Your task to perform on an android device: Open calendar and show me the second week of next month Image 0: 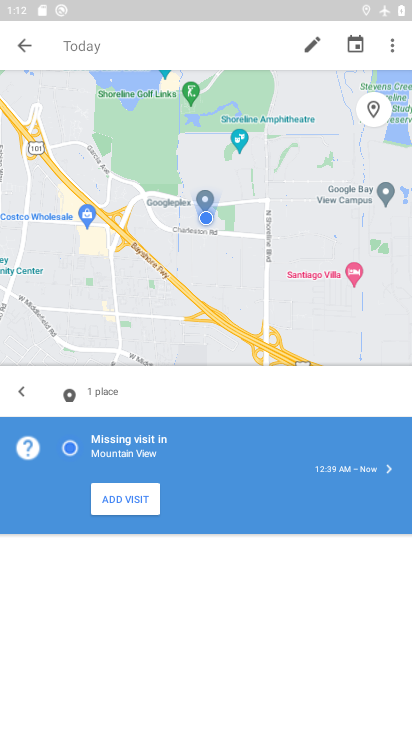
Step 0: press home button
Your task to perform on an android device: Open calendar and show me the second week of next month Image 1: 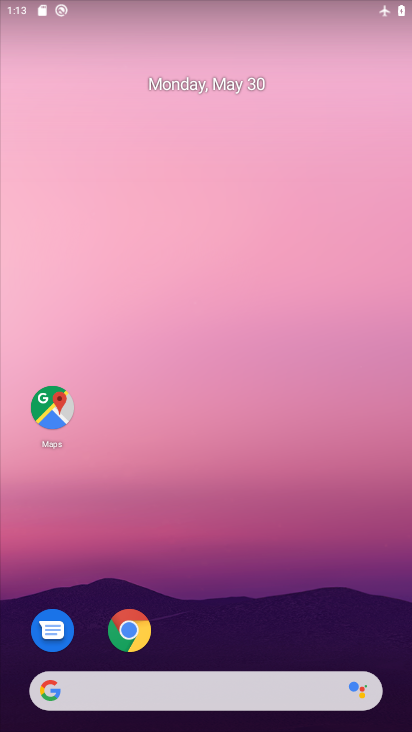
Step 1: drag from (197, 686) to (355, 69)
Your task to perform on an android device: Open calendar and show me the second week of next month Image 2: 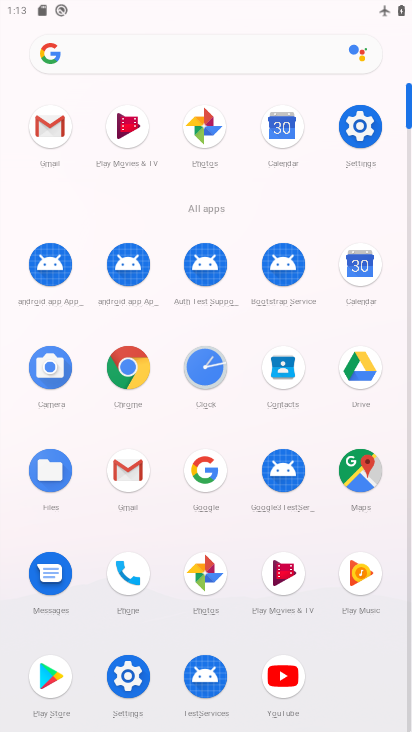
Step 2: click (277, 129)
Your task to perform on an android device: Open calendar and show me the second week of next month Image 3: 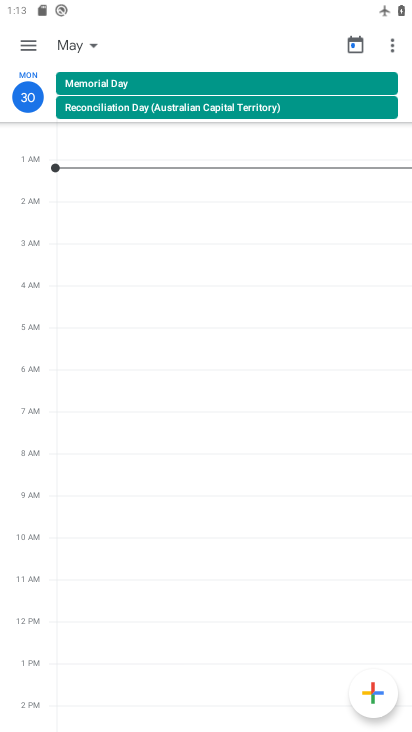
Step 3: click (76, 45)
Your task to perform on an android device: Open calendar and show me the second week of next month Image 4: 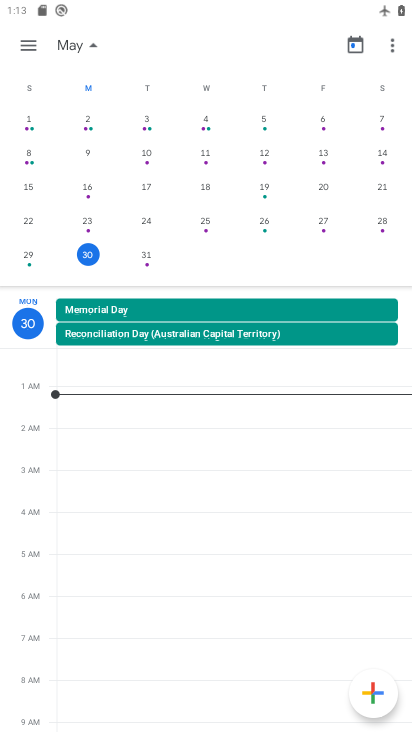
Step 4: drag from (369, 192) to (0, 227)
Your task to perform on an android device: Open calendar and show me the second week of next month Image 5: 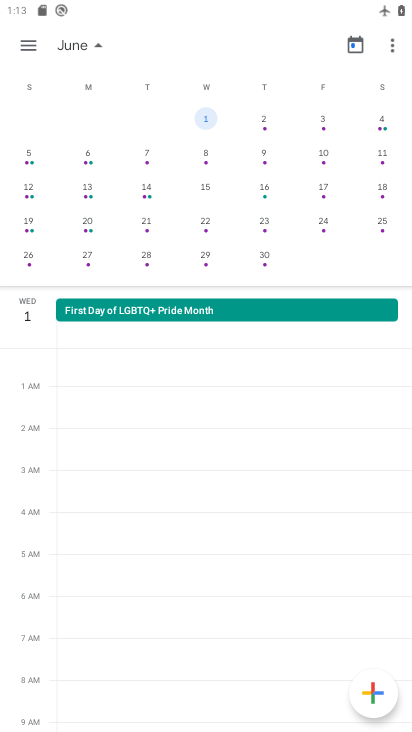
Step 5: click (33, 154)
Your task to perform on an android device: Open calendar and show me the second week of next month Image 6: 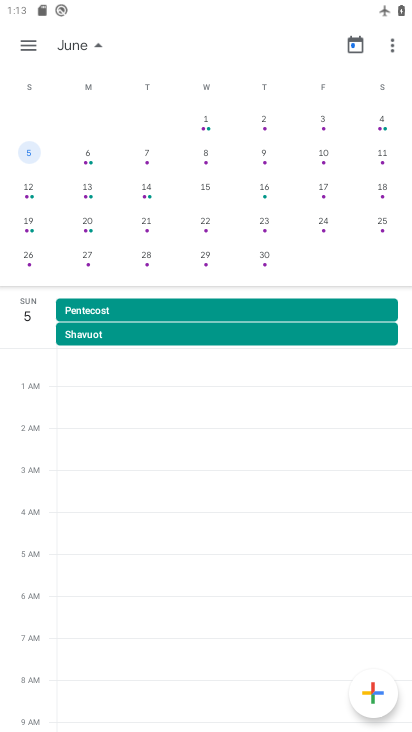
Step 6: click (30, 44)
Your task to perform on an android device: Open calendar and show me the second week of next month Image 7: 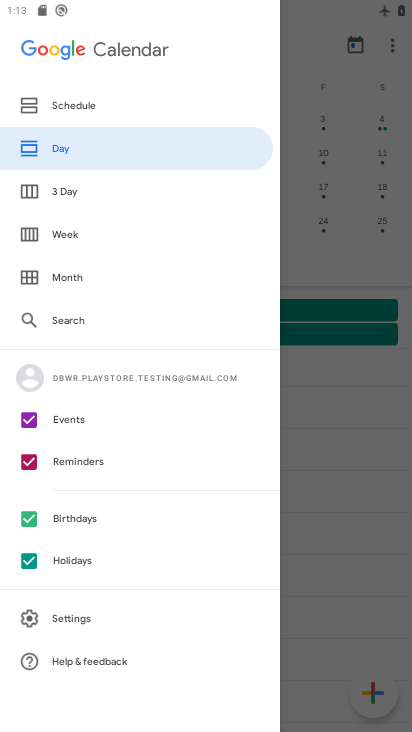
Step 7: click (79, 236)
Your task to perform on an android device: Open calendar and show me the second week of next month Image 8: 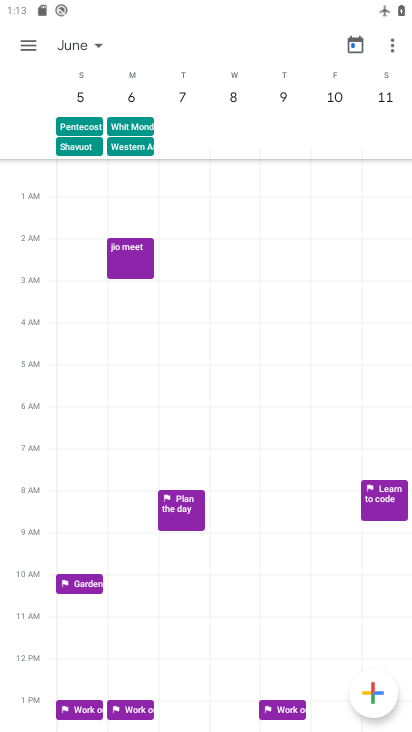
Step 8: task complete